Your task to perform on an android device: Open Google Maps and go to "Timeline" Image 0: 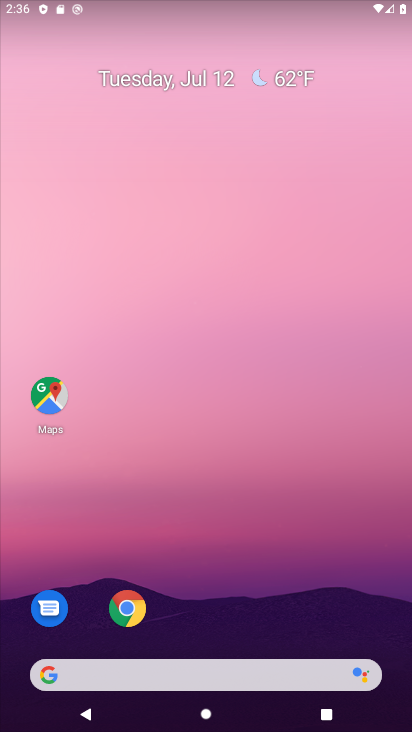
Step 0: press home button
Your task to perform on an android device: Open Google Maps and go to "Timeline" Image 1: 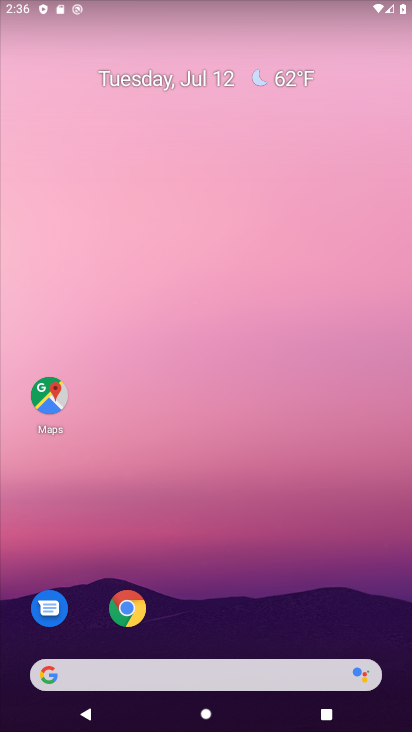
Step 1: drag from (129, 677) to (291, 172)
Your task to perform on an android device: Open Google Maps and go to "Timeline" Image 2: 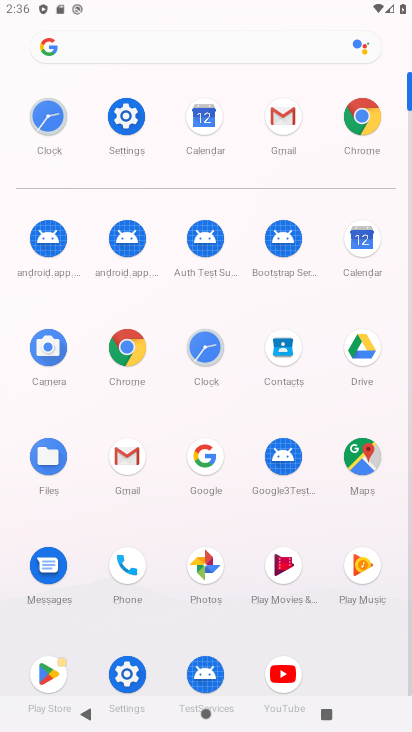
Step 2: click (360, 462)
Your task to perform on an android device: Open Google Maps and go to "Timeline" Image 3: 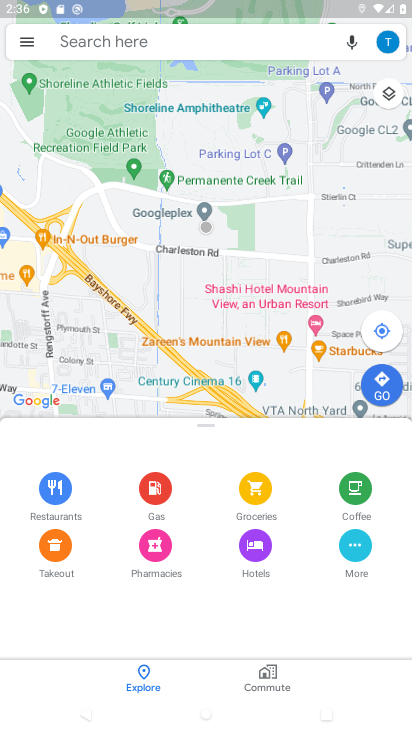
Step 3: click (20, 42)
Your task to perform on an android device: Open Google Maps and go to "Timeline" Image 4: 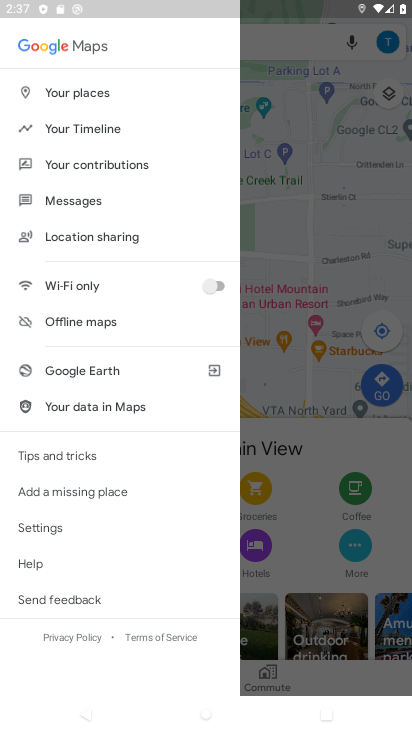
Step 4: click (24, 44)
Your task to perform on an android device: Open Google Maps and go to "Timeline" Image 5: 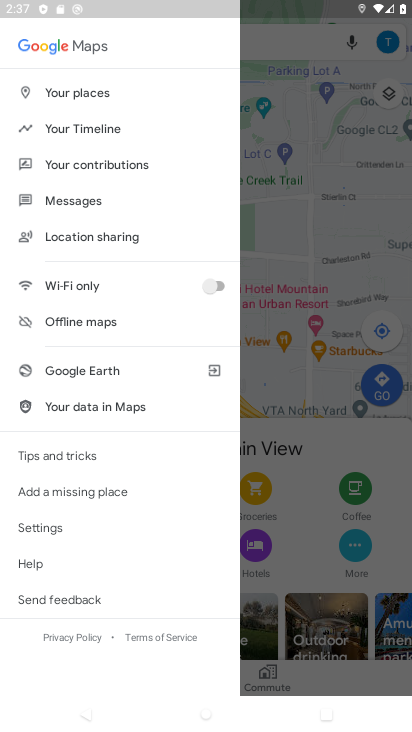
Step 5: click (84, 127)
Your task to perform on an android device: Open Google Maps and go to "Timeline" Image 6: 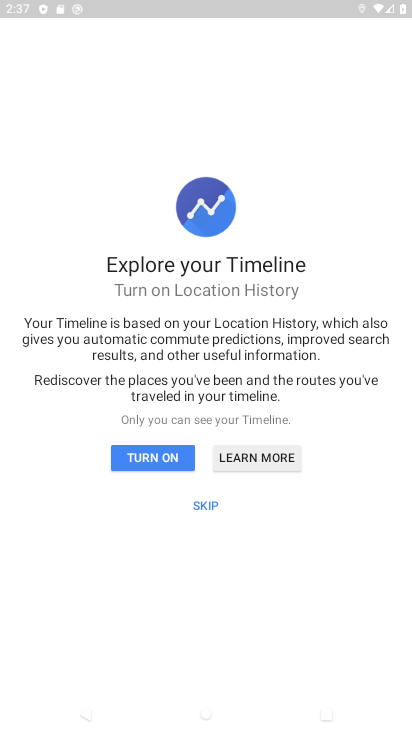
Step 6: click (205, 499)
Your task to perform on an android device: Open Google Maps and go to "Timeline" Image 7: 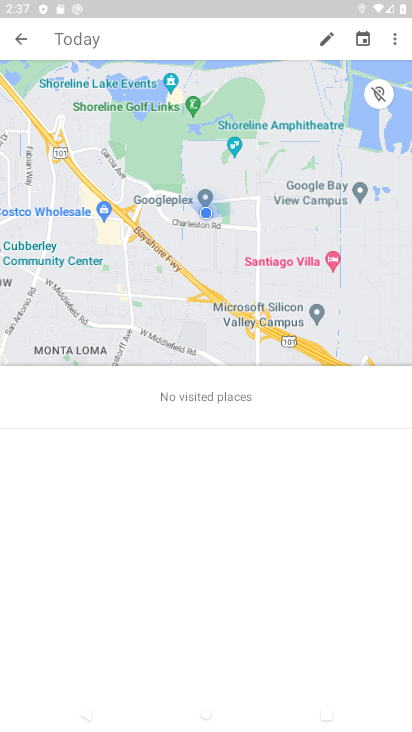
Step 7: task complete